Your task to perform on an android device: Go to Reddit.com Image 0: 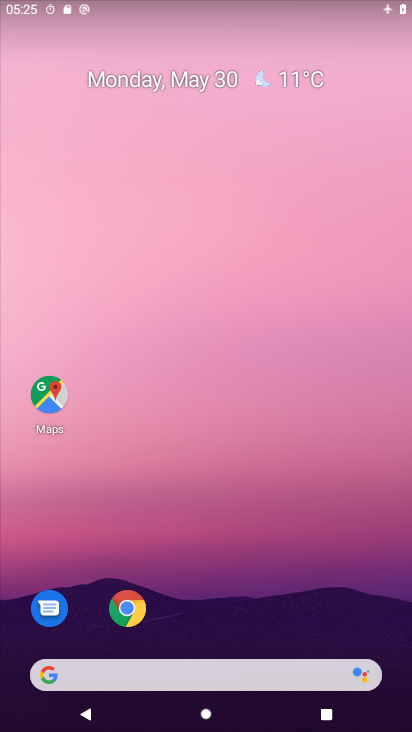
Step 0: click (131, 616)
Your task to perform on an android device: Go to Reddit.com Image 1: 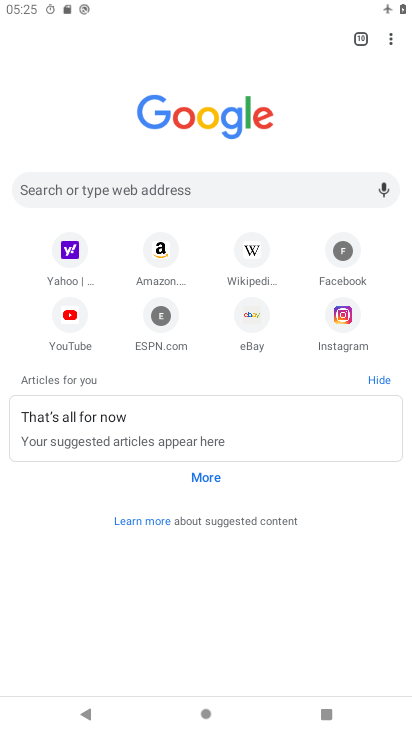
Step 1: click (116, 184)
Your task to perform on an android device: Go to Reddit.com Image 2: 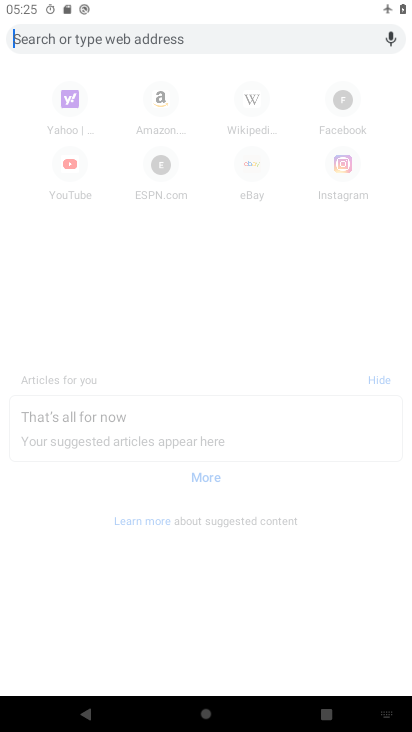
Step 2: type "reddit.com"
Your task to perform on an android device: Go to Reddit.com Image 3: 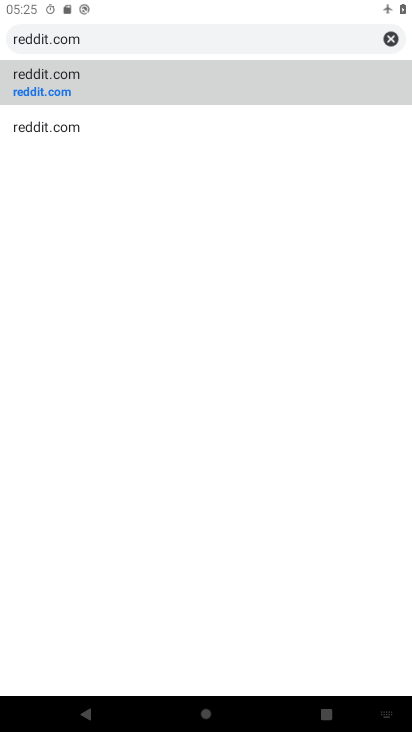
Step 3: click (141, 76)
Your task to perform on an android device: Go to Reddit.com Image 4: 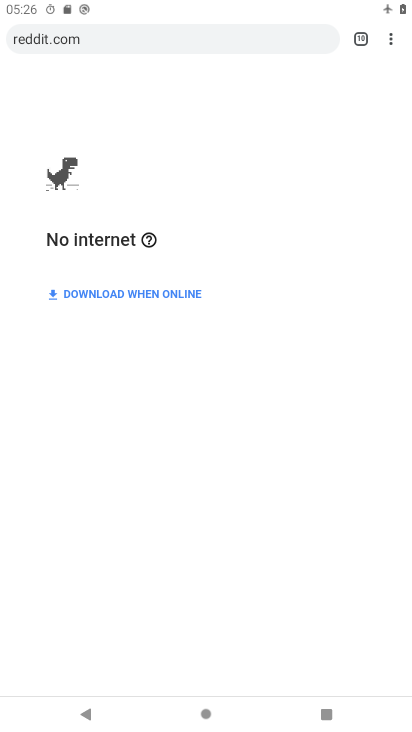
Step 4: task complete